Your task to perform on an android device: turn pop-ups on in chrome Image 0: 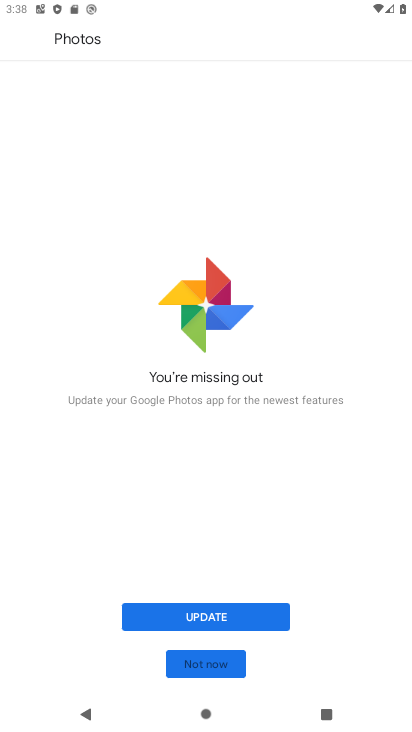
Step 0: press home button
Your task to perform on an android device: turn pop-ups on in chrome Image 1: 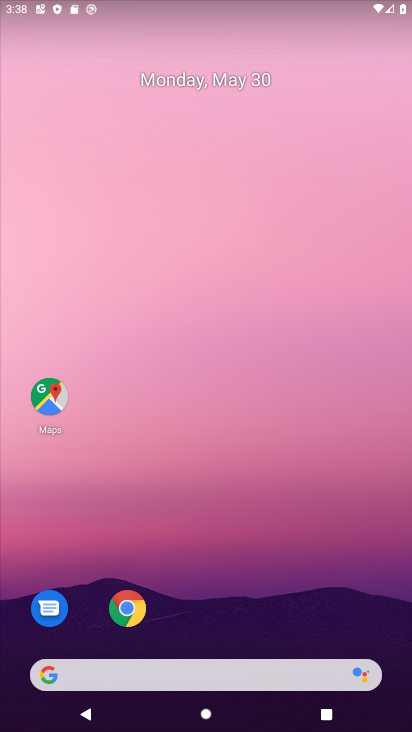
Step 1: drag from (241, 600) to (248, 173)
Your task to perform on an android device: turn pop-ups on in chrome Image 2: 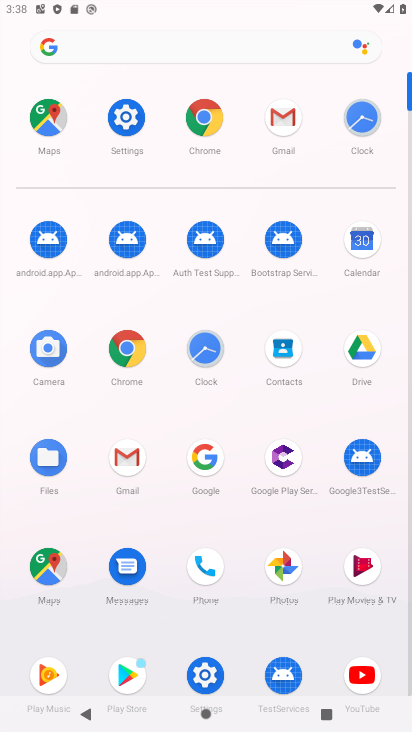
Step 2: click (199, 112)
Your task to perform on an android device: turn pop-ups on in chrome Image 3: 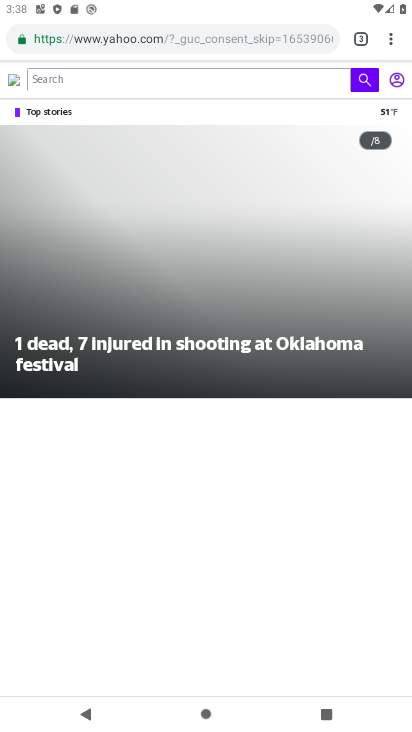
Step 3: click (396, 35)
Your task to perform on an android device: turn pop-ups on in chrome Image 4: 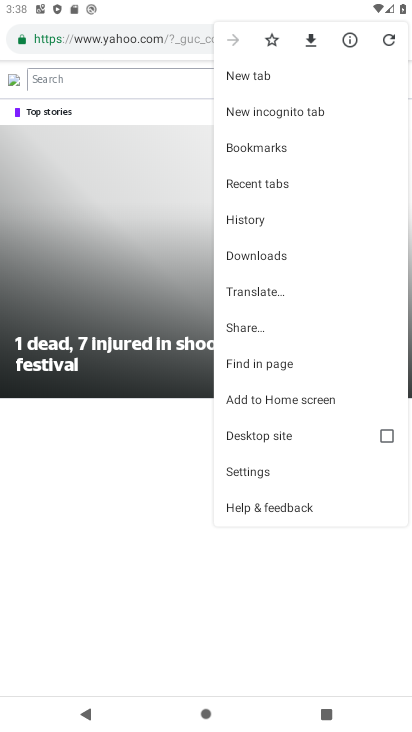
Step 4: drag from (267, 441) to (289, 225)
Your task to perform on an android device: turn pop-ups on in chrome Image 5: 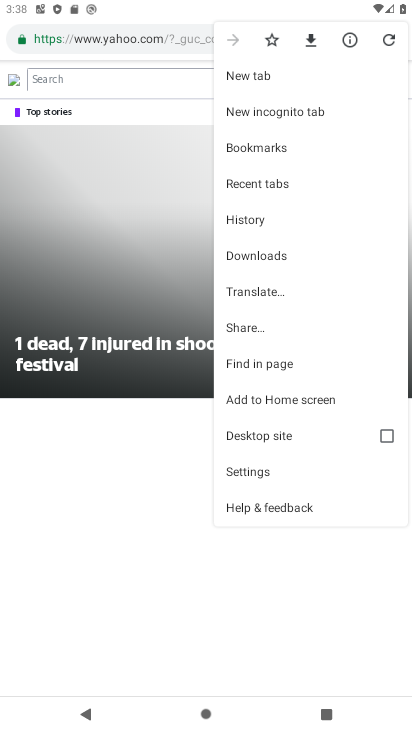
Step 5: click (255, 473)
Your task to perform on an android device: turn pop-ups on in chrome Image 6: 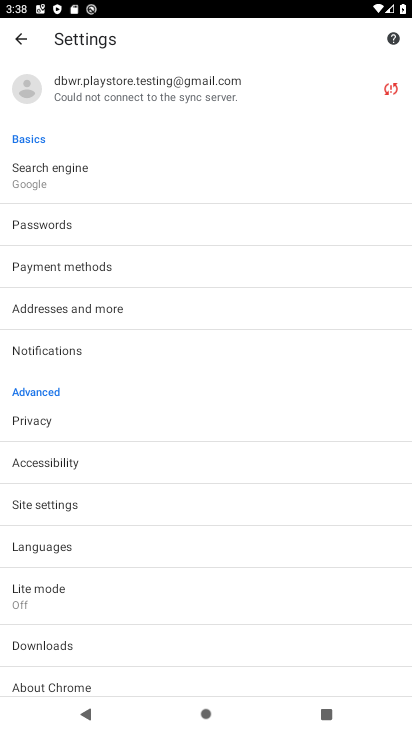
Step 6: click (58, 501)
Your task to perform on an android device: turn pop-ups on in chrome Image 7: 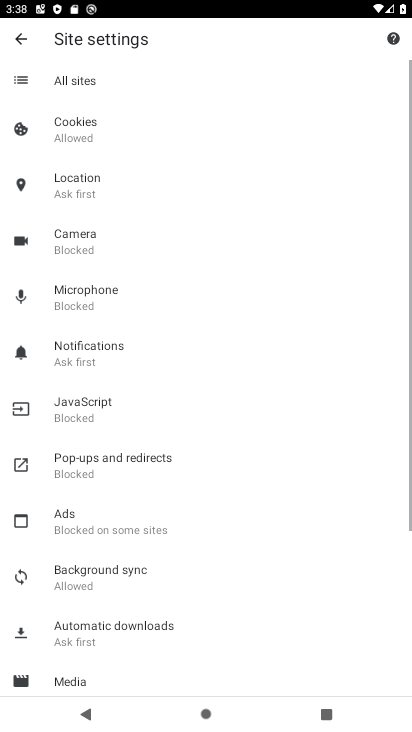
Step 7: click (156, 460)
Your task to perform on an android device: turn pop-ups on in chrome Image 8: 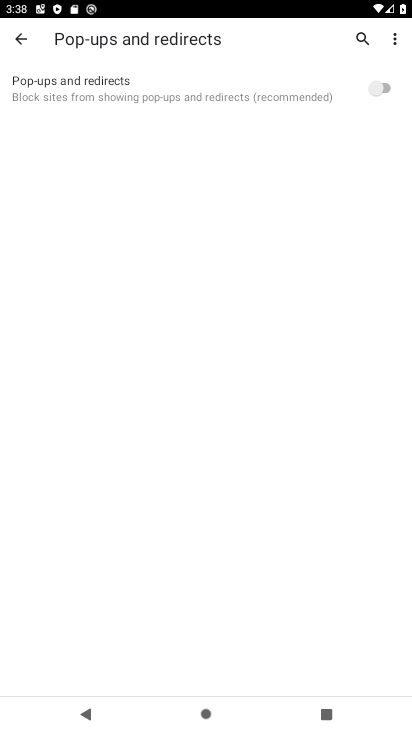
Step 8: task complete